Your task to perform on an android device: toggle pop-ups in chrome Image 0: 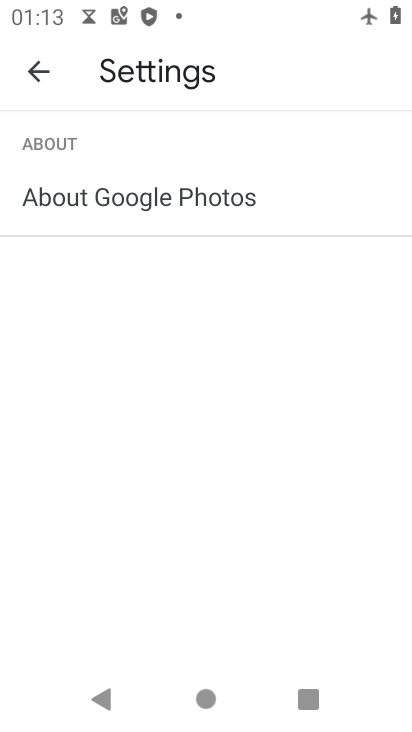
Step 0: press home button
Your task to perform on an android device: toggle pop-ups in chrome Image 1: 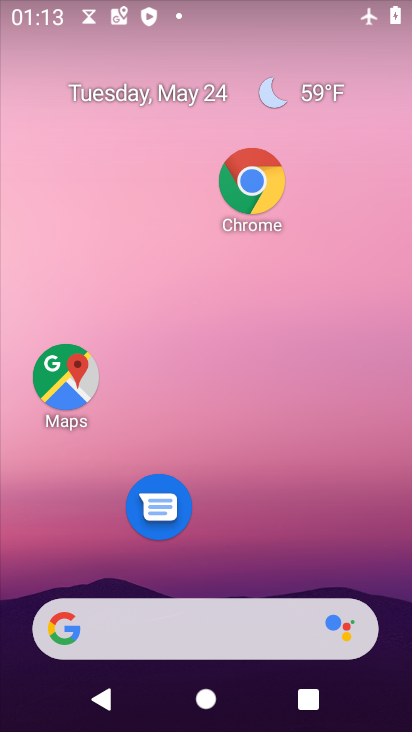
Step 1: drag from (277, 548) to (298, 291)
Your task to perform on an android device: toggle pop-ups in chrome Image 2: 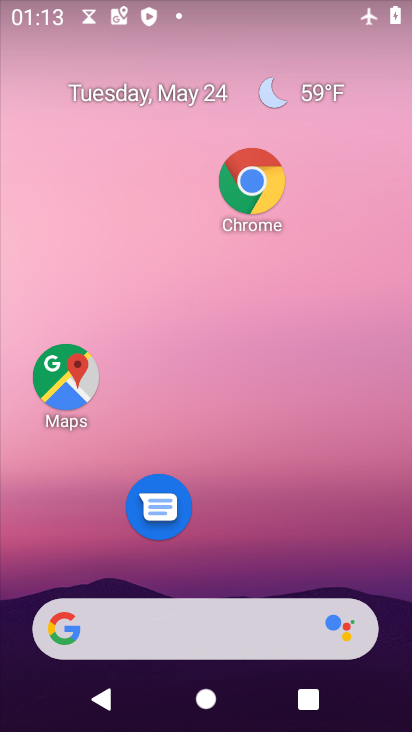
Step 2: drag from (287, 494) to (303, 325)
Your task to perform on an android device: toggle pop-ups in chrome Image 3: 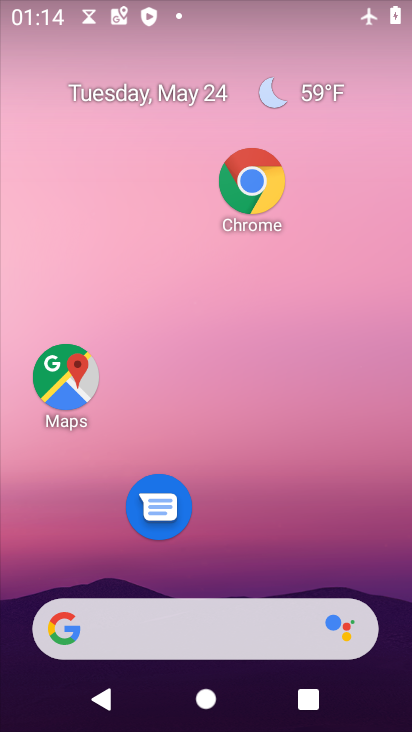
Step 3: click (261, 178)
Your task to perform on an android device: toggle pop-ups in chrome Image 4: 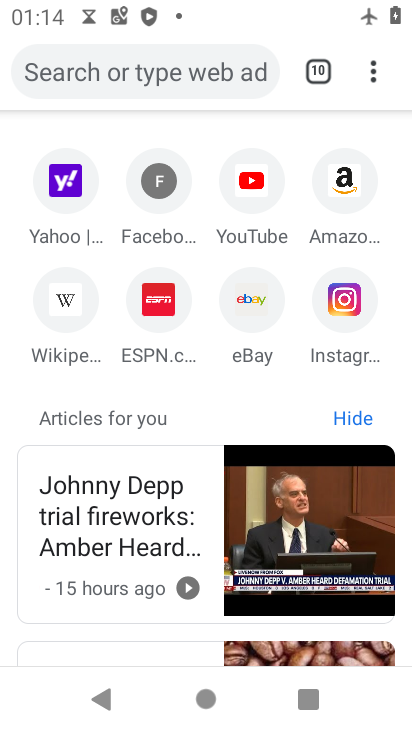
Step 4: click (362, 69)
Your task to perform on an android device: toggle pop-ups in chrome Image 5: 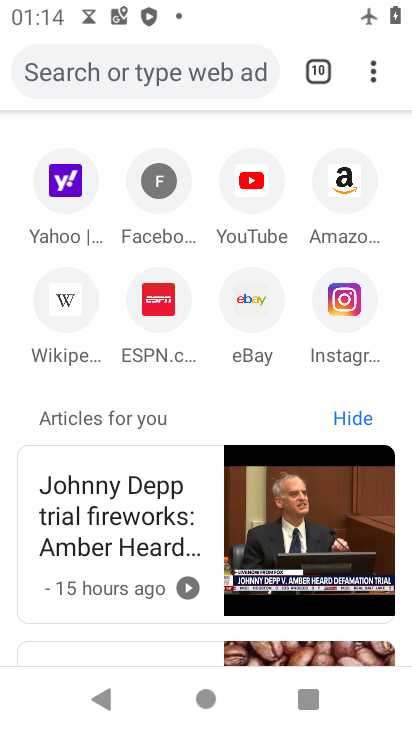
Step 5: click (361, 66)
Your task to perform on an android device: toggle pop-ups in chrome Image 6: 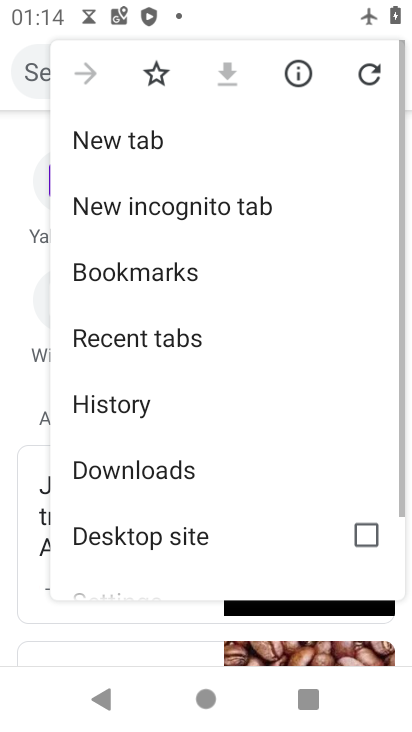
Step 6: drag from (198, 514) to (224, 178)
Your task to perform on an android device: toggle pop-ups in chrome Image 7: 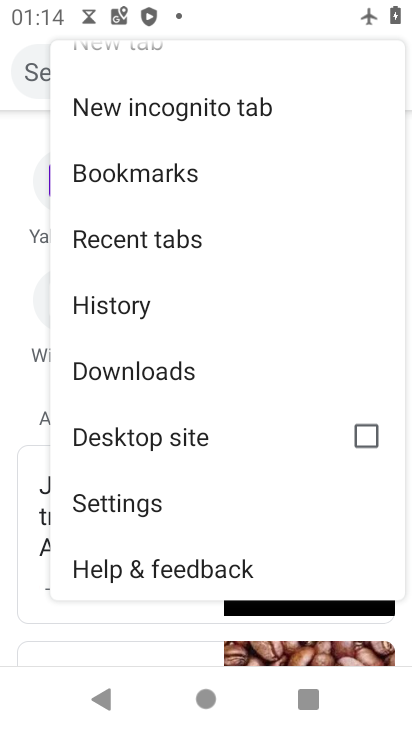
Step 7: click (136, 499)
Your task to perform on an android device: toggle pop-ups in chrome Image 8: 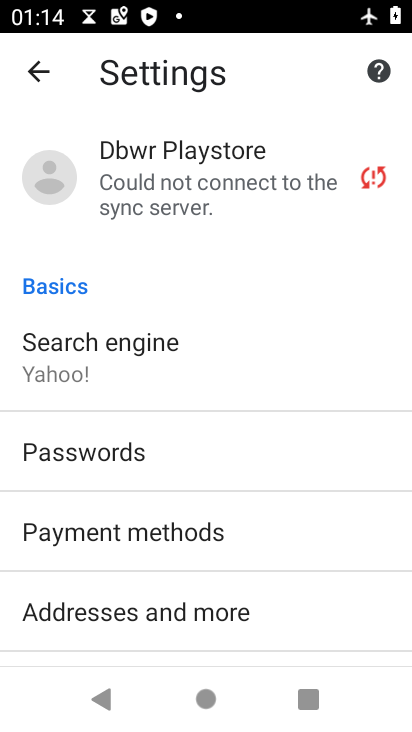
Step 8: drag from (208, 579) to (278, 160)
Your task to perform on an android device: toggle pop-ups in chrome Image 9: 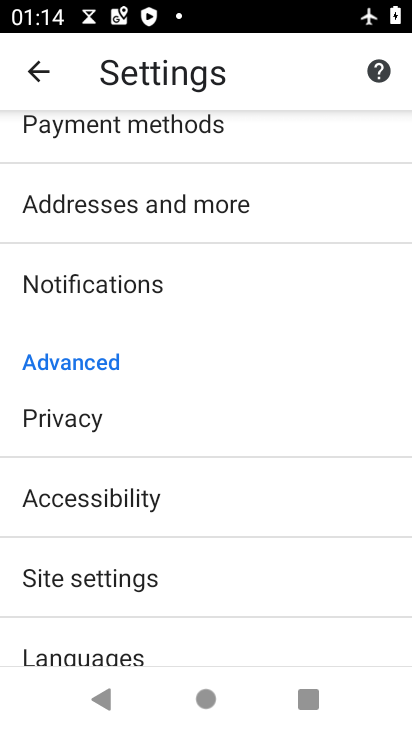
Step 9: drag from (214, 525) to (243, 183)
Your task to perform on an android device: toggle pop-ups in chrome Image 10: 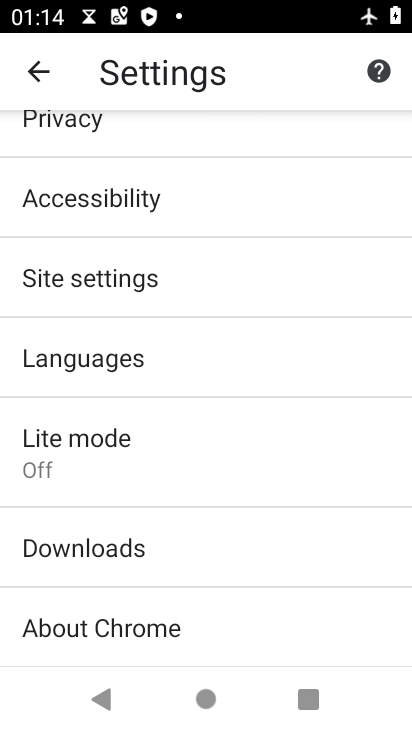
Step 10: drag from (193, 474) to (222, 210)
Your task to perform on an android device: toggle pop-ups in chrome Image 11: 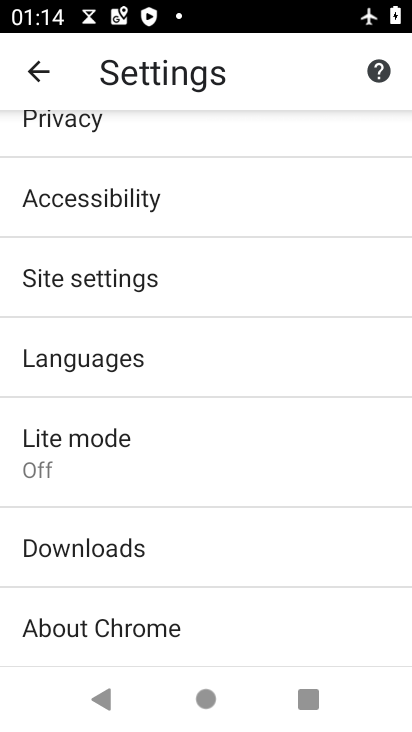
Step 11: click (187, 262)
Your task to perform on an android device: toggle pop-ups in chrome Image 12: 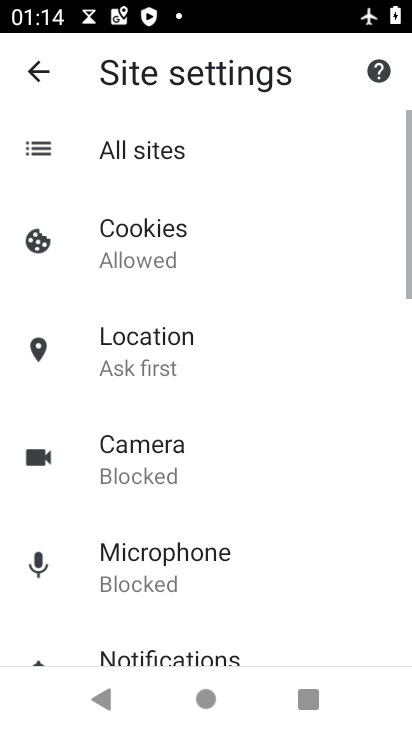
Step 12: drag from (236, 544) to (266, 251)
Your task to perform on an android device: toggle pop-ups in chrome Image 13: 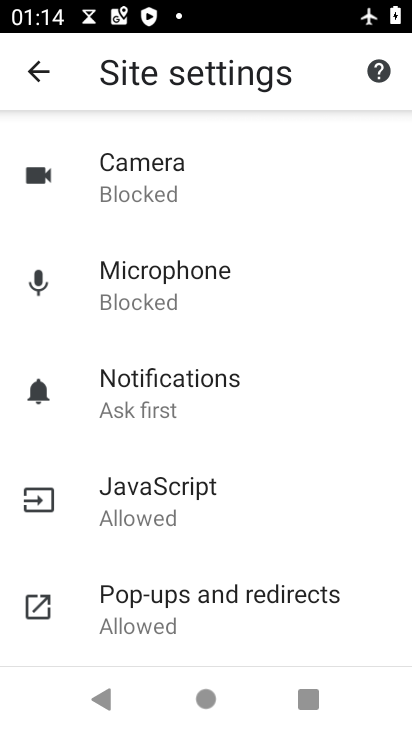
Step 13: click (227, 595)
Your task to perform on an android device: toggle pop-ups in chrome Image 14: 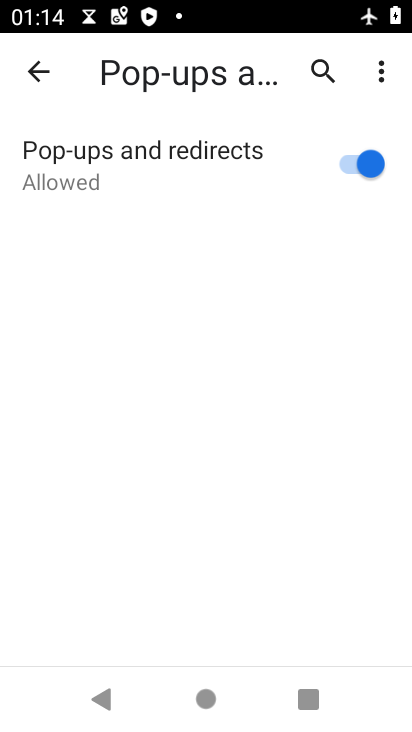
Step 14: click (354, 169)
Your task to perform on an android device: toggle pop-ups in chrome Image 15: 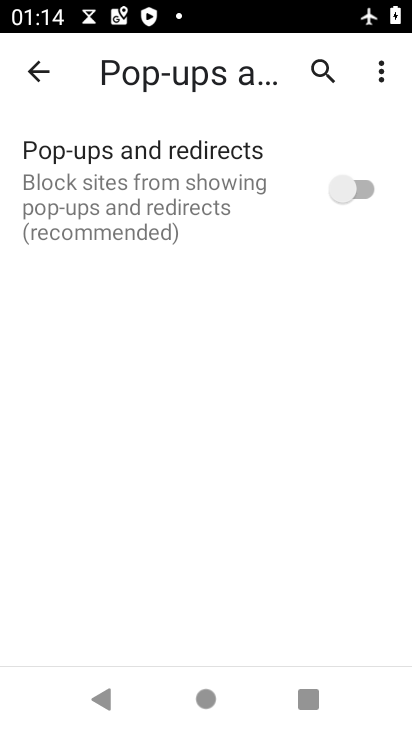
Step 15: task complete